Your task to perform on an android device: turn off sleep mode Image 0: 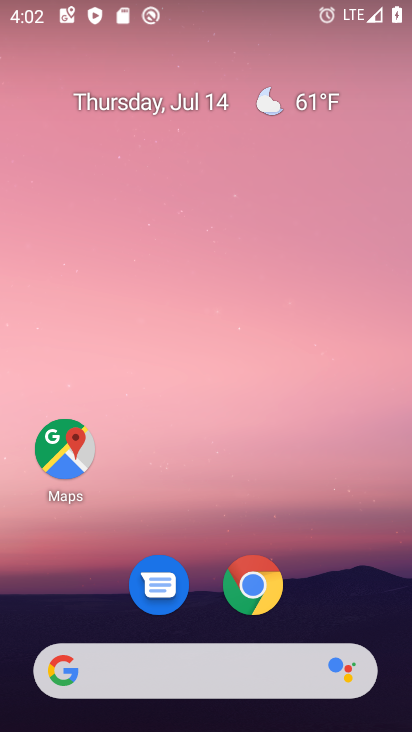
Step 0: drag from (258, 532) to (267, 0)
Your task to perform on an android device: turn off sleep mode Image 1: 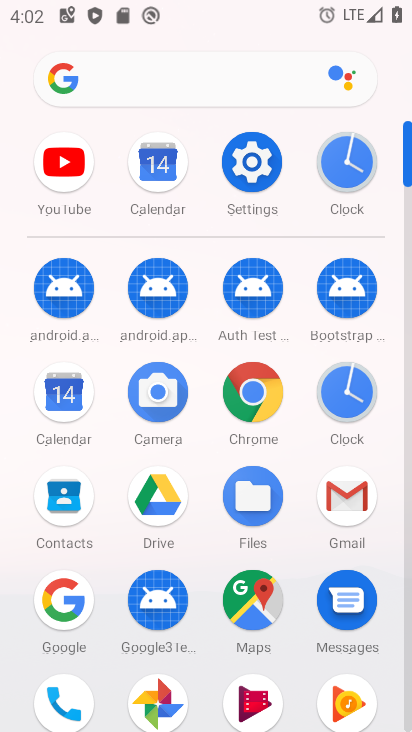
Step 1: click (258, 173)
Your task to perform on an android device: turn off sleep mode Image 2: 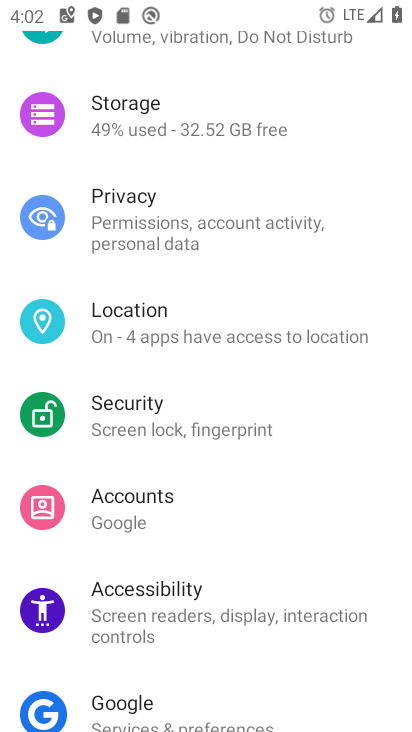
Step 2: drag from (243, 183) to (252, 606)
Your task to perform on an android device: turn off sleep mode Image 3: 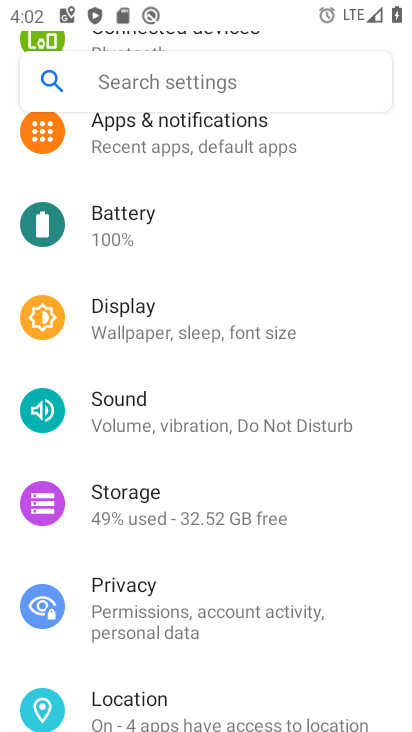
Step 3: click (180, 327)
Your task to perform on an android device: turn off sleep mode Image 4: 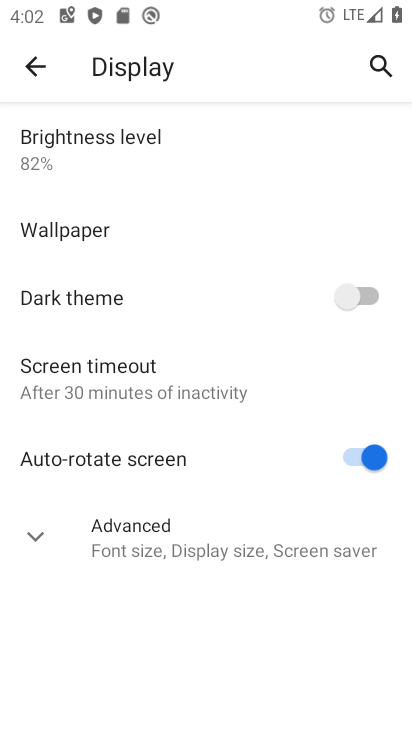
Step 4: click (40, 531)
Your task to perform on an android device: turn off sleep mode Image 5: 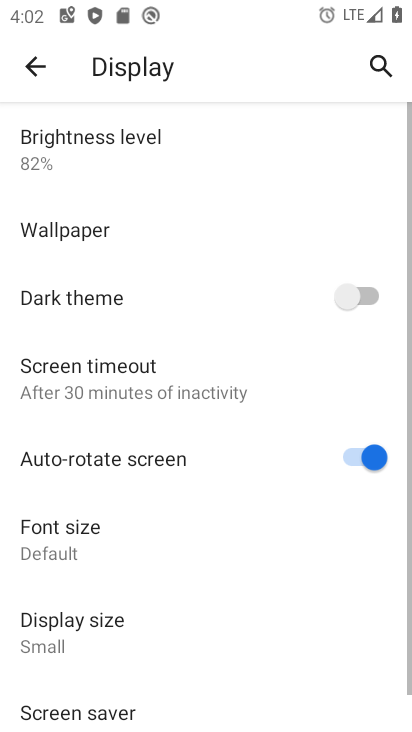
Step 5: task complete